Your task to perform on an android device: Check the news Image 0: 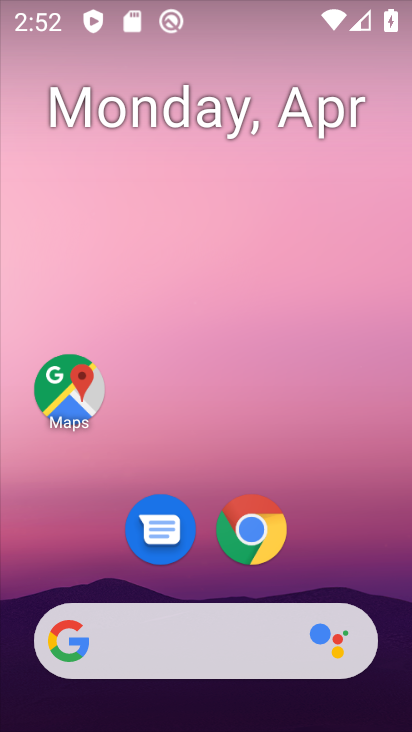
Step 0: drag from (294, 674) to (320, 138)
Your task to perform on an android device: Check the news Image 1: 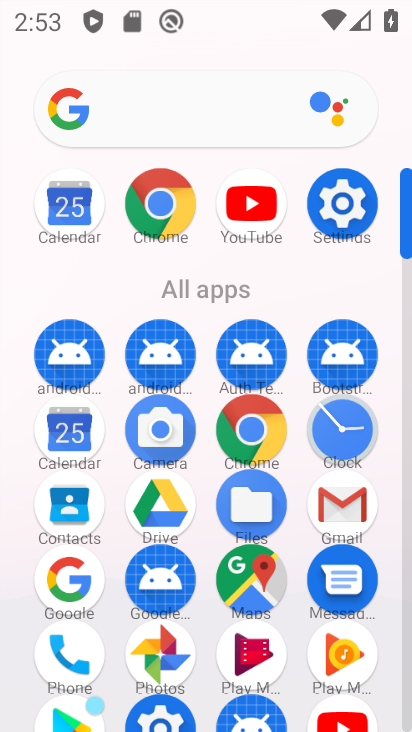
Step 1: click (185, 114)
Your task to perform on an android device: Check the news Image 2: 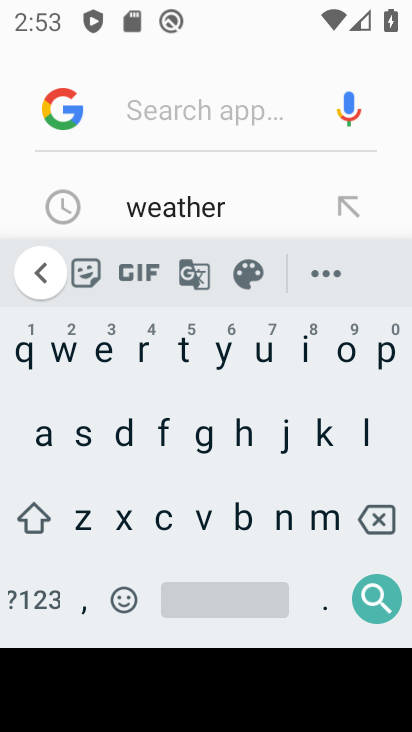
Step 2: click (286, 526)
Your task to perform on an android device: Check the news Image 3: 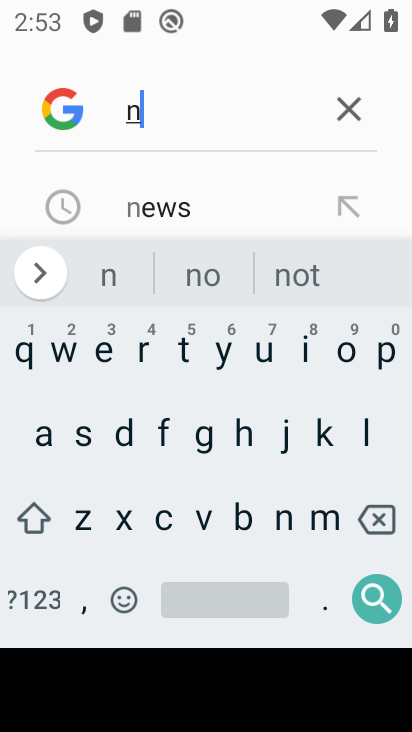
Step 3: click (203, 216)
Your task to perform on an android device: Check the news Image 4: 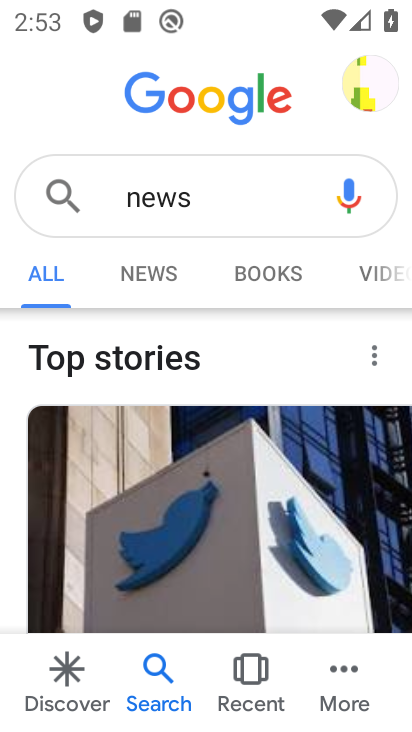
Step 4: task complete